Your task to perform on an android device: Is it going to rain this weekend? Image 0: 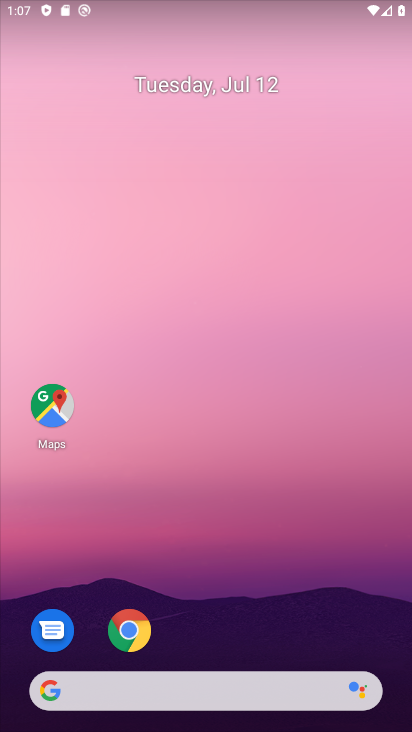
Step 0: drag from (191, 643) to (110, 117)
Your task to perform on an android device: Is it going to rain this weekend? Image 1: 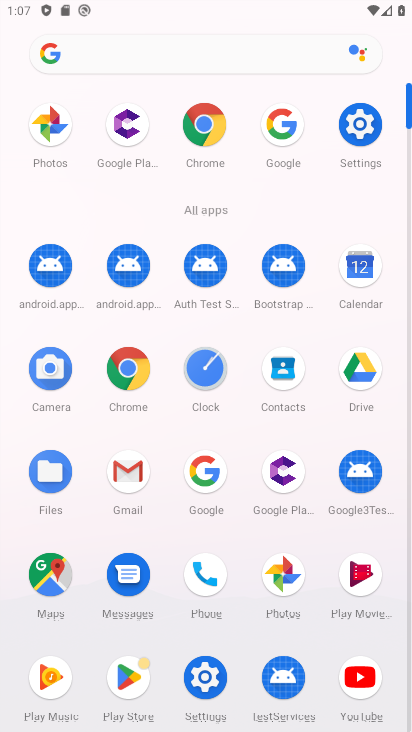
Step 1: click (286, 121)
Your task to perform on an android device: Is it going to rain this weekend? Image 2: 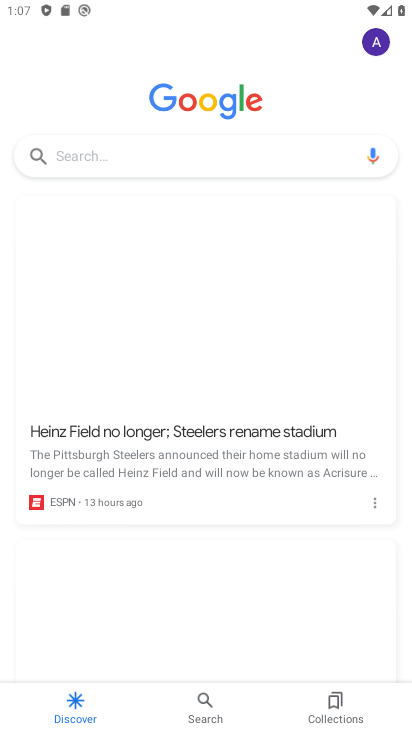
Step 2: click (173, 165)
Your task to perform on an android device: Is it going to rain this weekend? Image 3: 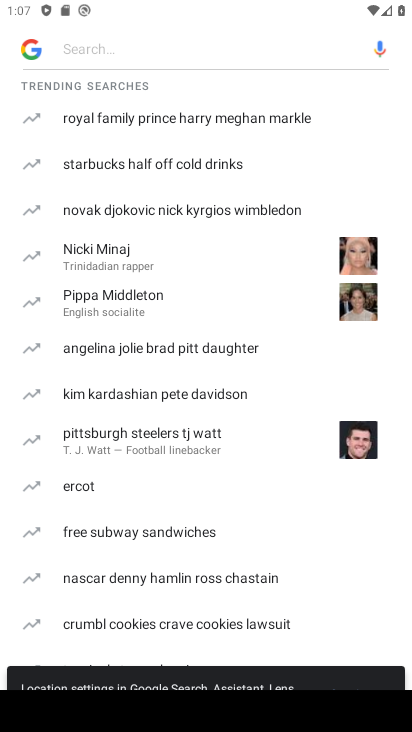
Step 3: drag from (164, 499) to (133, 137)
Your task to perform on an android device: Is it going to rain this weekend? Image 4: 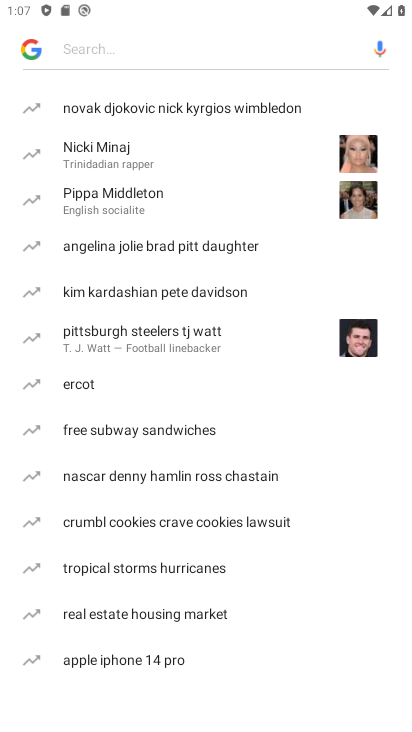
Step 4: drag from (167, 576) to (170, 640)
Your task to perform on an android device: Is it going to rain this weekend? Image 5: 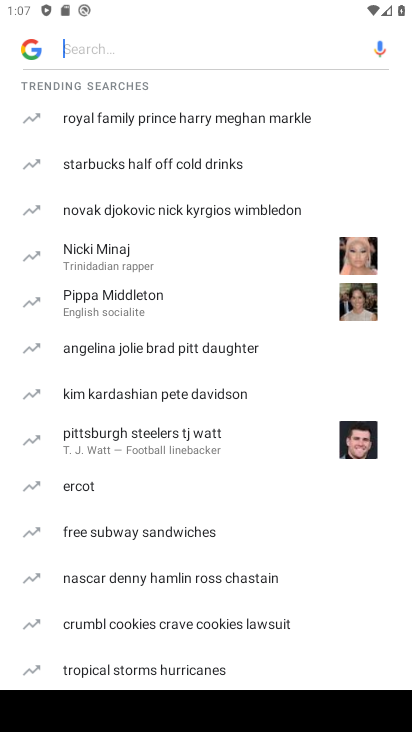
Step 5: type "wethwer"
Your task to perform on an android device: Is it going to rain this weekend? Image 6: 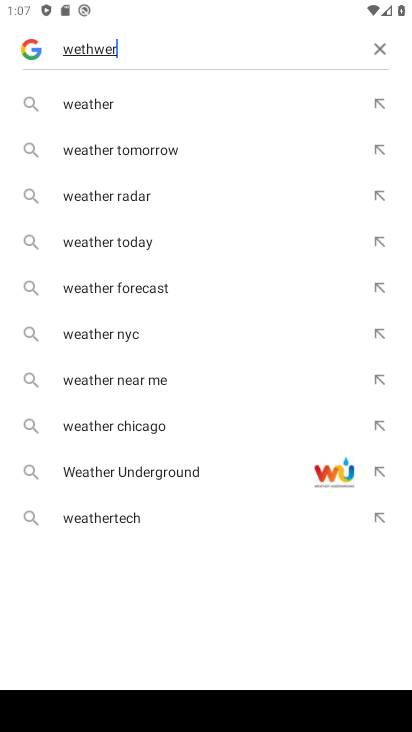
Step 6: click (128, 104)
Your task to perform on an android device: Is it going to rain this weekend? Image 7: 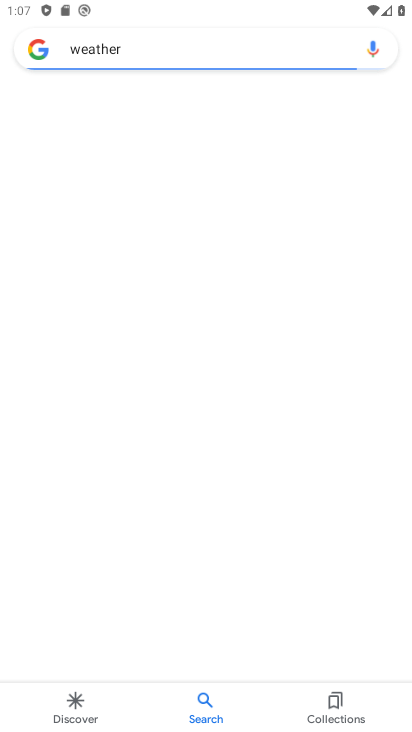
Step 7: task complete